Your task to perform on an android device: turn on location history Image 0: 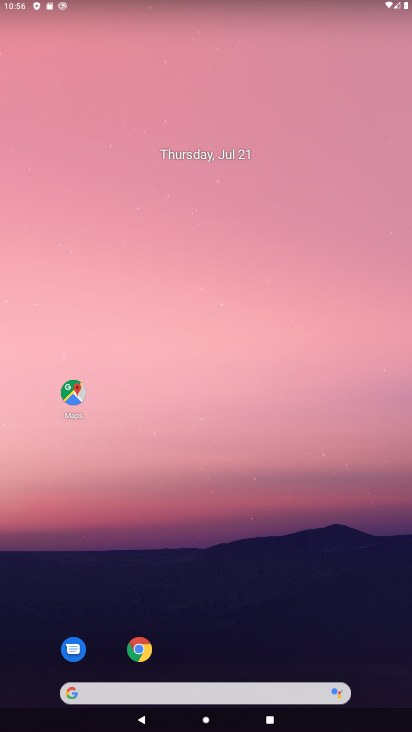
Step 0: drag from (217, 678) to (131, 75)
Your task to perform on an android device: turn on location history Image 1: 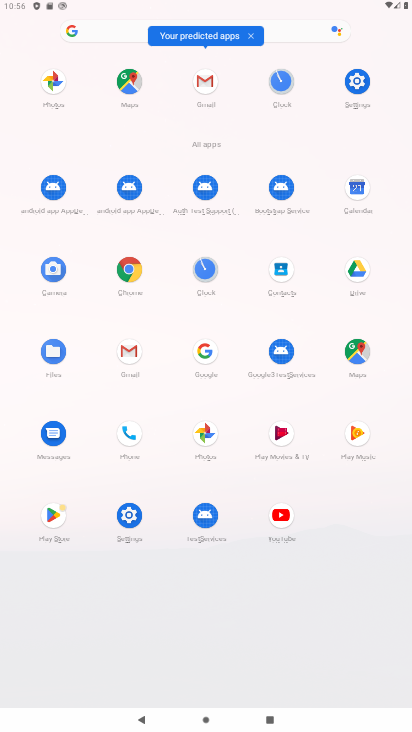
Step 1: click (117, 514)
Your task to perform on an android device: turn on location history Image 2: 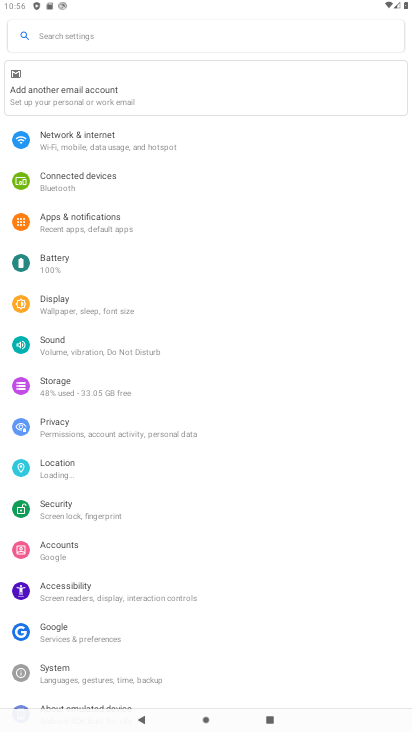
Step 2: click (55, 473)
Your task to perform on an android device: turn on location history Image 3: 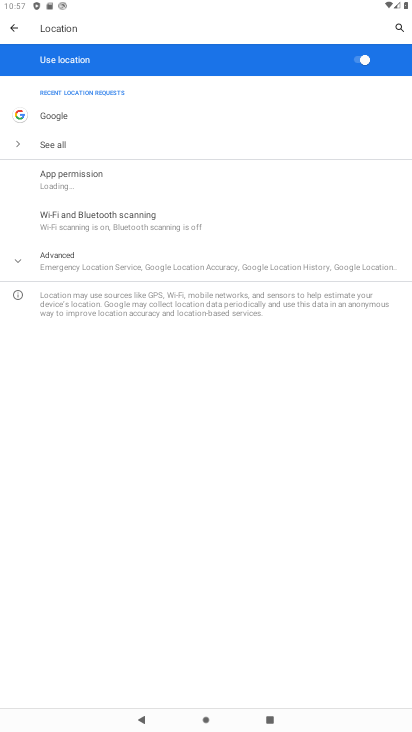
Step 3: click (73, 258)
Your task to perform on an android device: turn on location history Image 4: 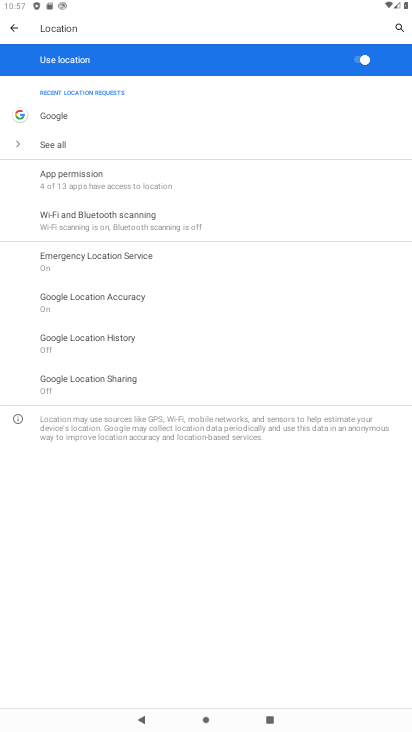
Step 4: click (112, 321)
Your task to perform on an android device: turn on location history Image 5: 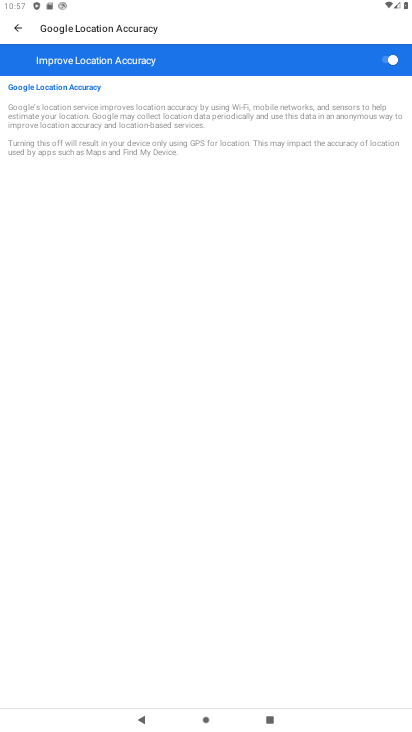
Step 5: task complete